Your task to perform on an android device: turn on showing notifications on the lock screen Image 0: 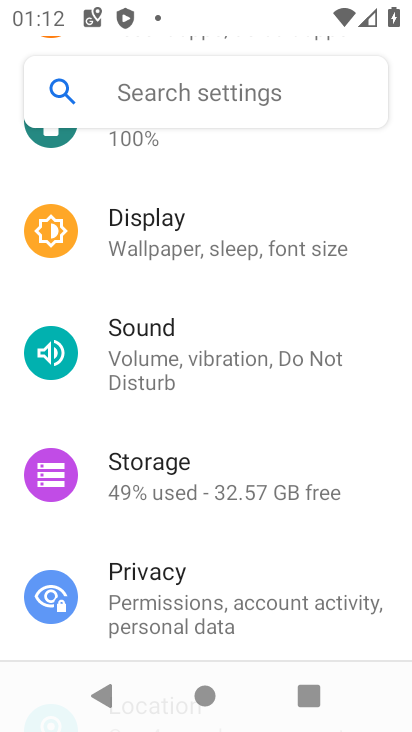
Step 0: press home button
Your task to perform on an android device: turn on showing notifications on the lock screen Image 1: 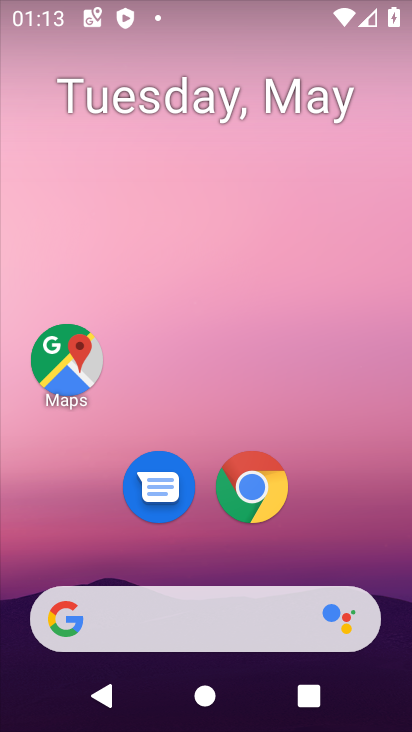
Step 1: drag from (323, 454) to (322, 43)
Your task to perform on an android device: turn on showing notifications on the lock screen Image 2: 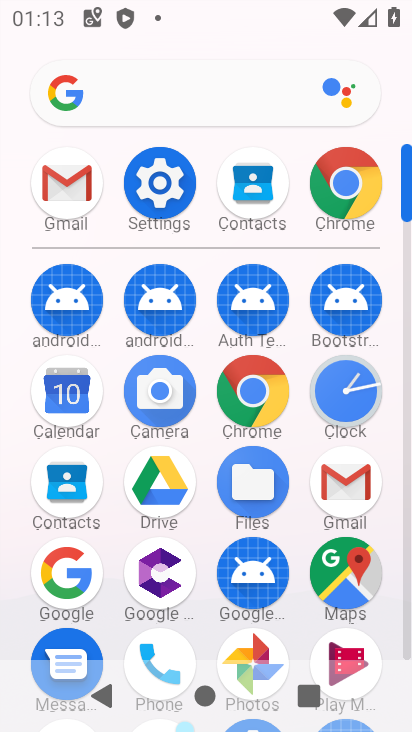
Step 2: click (162, 186)
Your task to perform on an android device: turn on showing notifications on the lock screen Image 3: 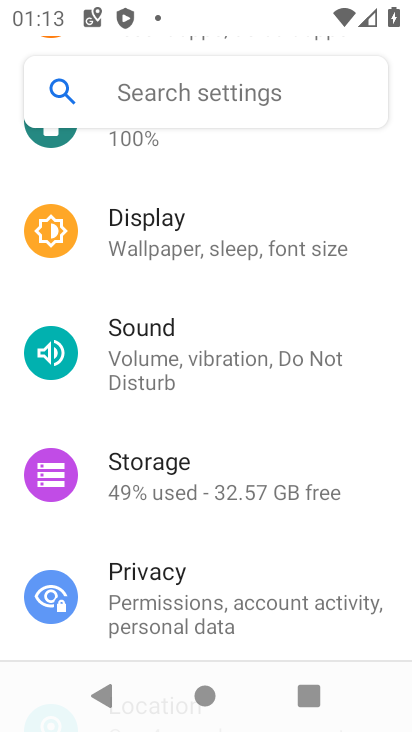
Step 3: drag from (312, 606) to (292, 224)
Your task to perform on an android device: turn on showing notifications on the lock screen Image 4: 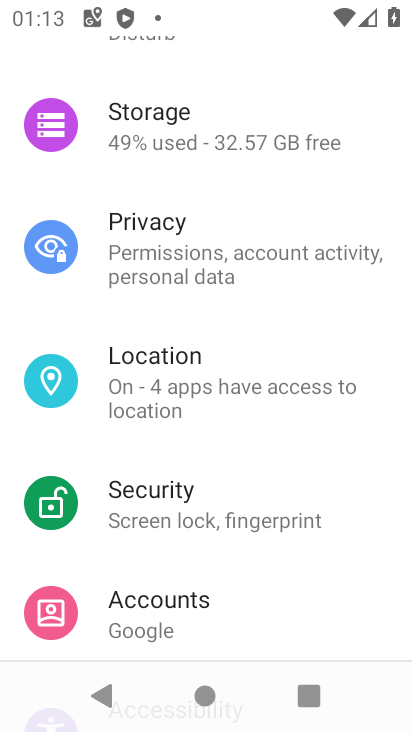
Step 4: drag from (266, 170) to (312, 530)
Your task to perform on an android device: turn on showing notifications on the lock screen Image 5: 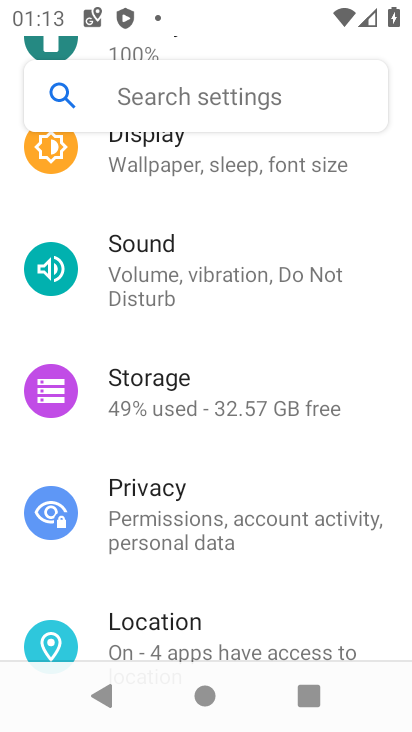
Step 5: click (208, 160)
Your task to perform on an android device: turn on showing notifications on the lock screen Image 6: 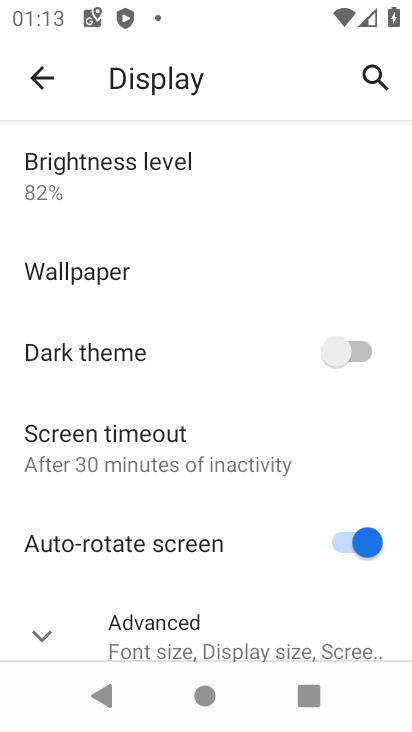
Step 6: task complete